Your task to perform on an android device: change notification settings in the gmail app Image 0: 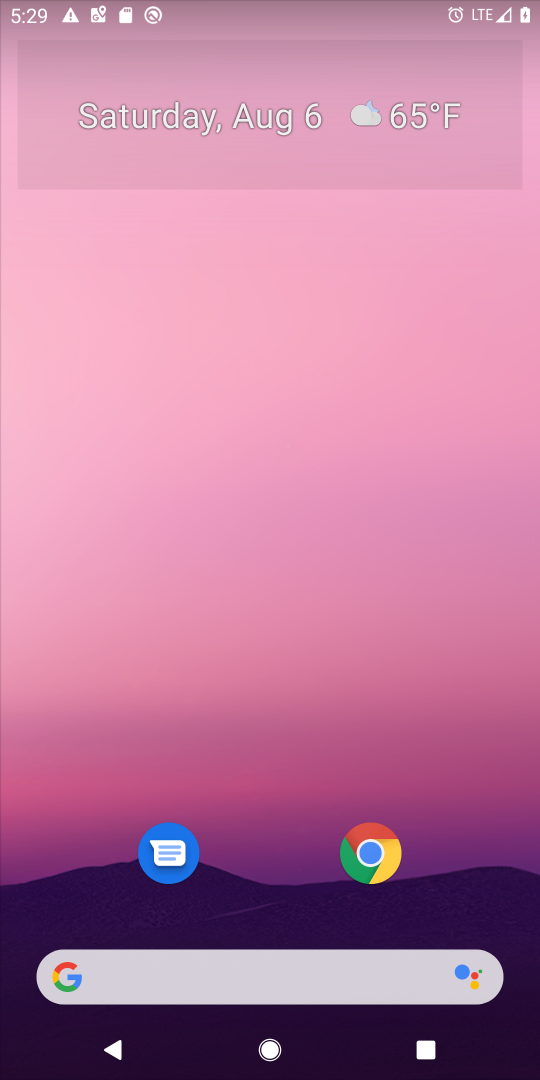
Step 0: drag from (217, 879) to (296, 159)
Your task to perform on an android device: change notification settings in the gmail app Image 1: 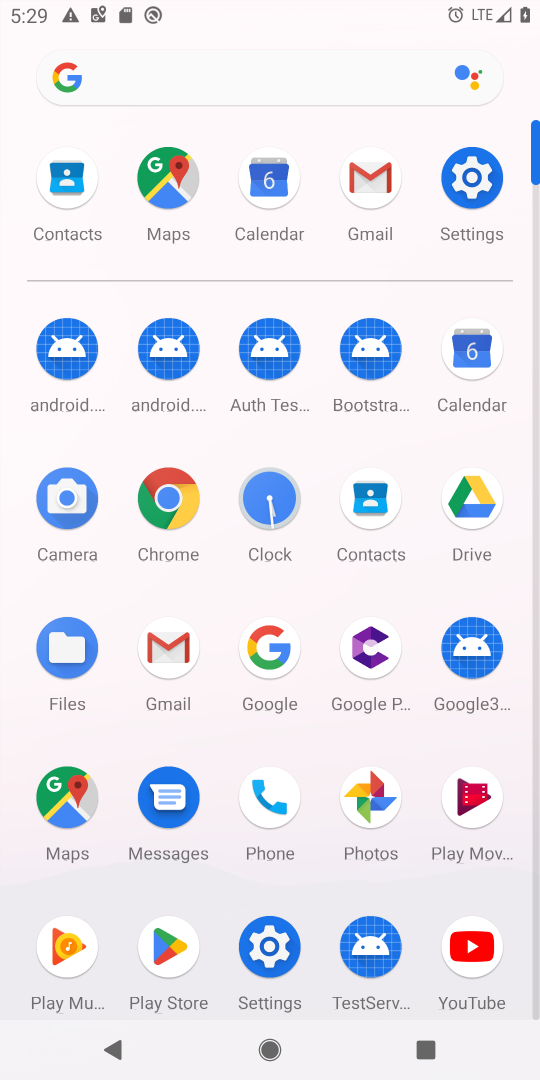
Step 1: click (374, 186)
Your task to perform on an android device: change notification settings in the gmail app Image 2: 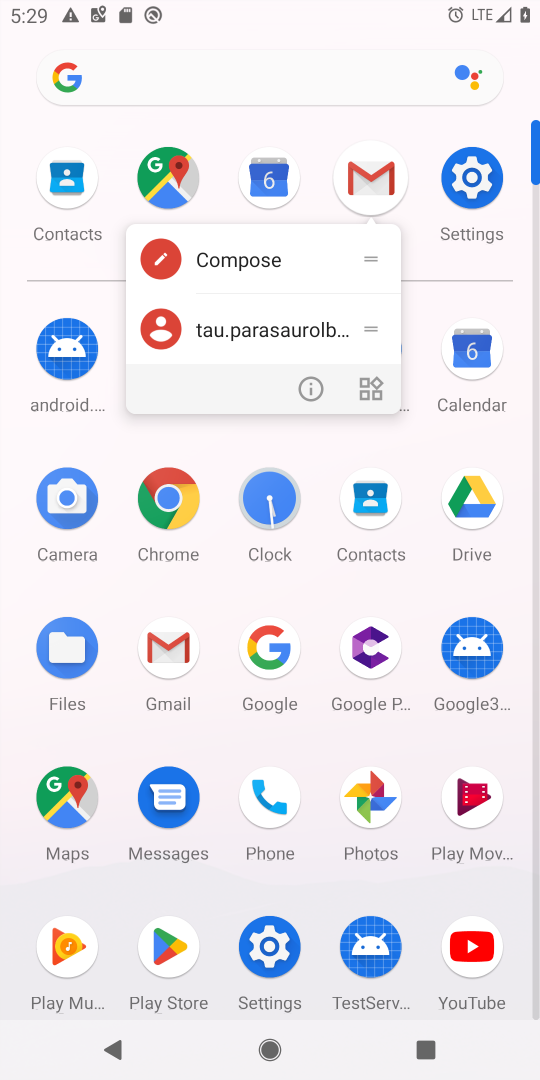
Step 2: click (308, 375)
Your task to perform on an android device: change notification settings in the gmail app Image 3: 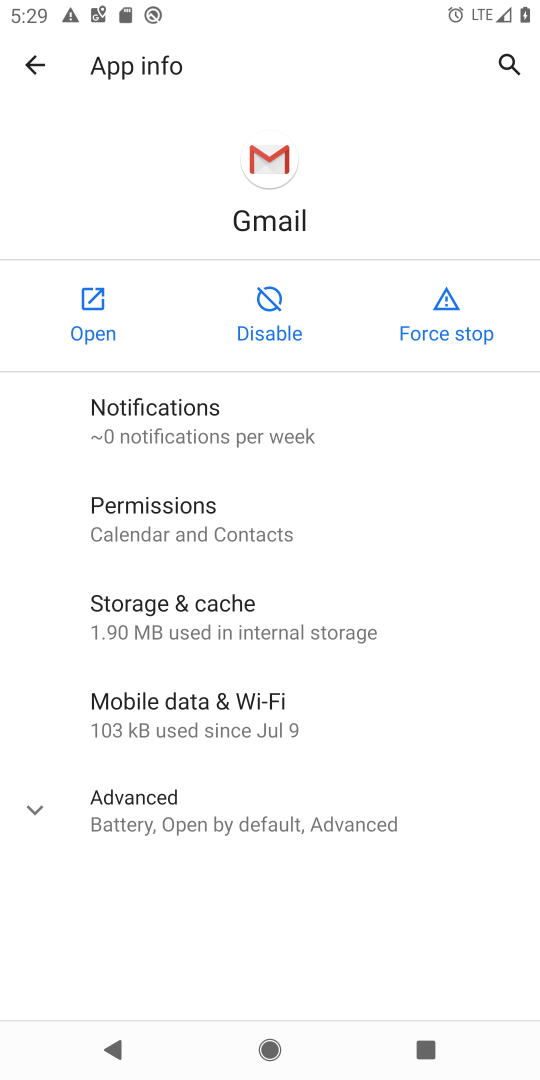
Step 3: click (212, 422)
Your task to perform on an android device: change notification settings in the gmail app Image 4: 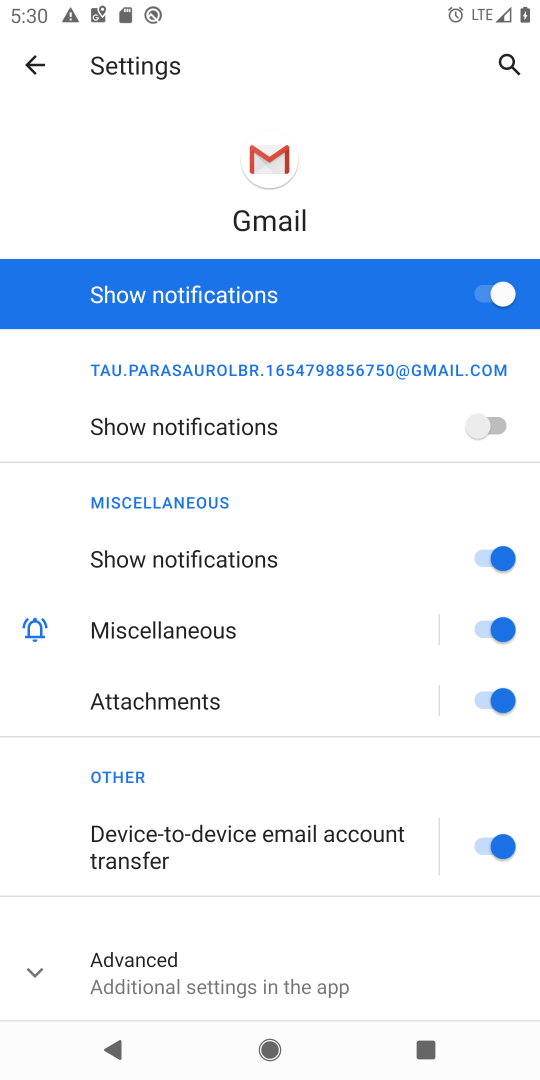
Step 4: click (484, 414)
Your task to perform on an android device: change notification settings in the gmail app Image 5: 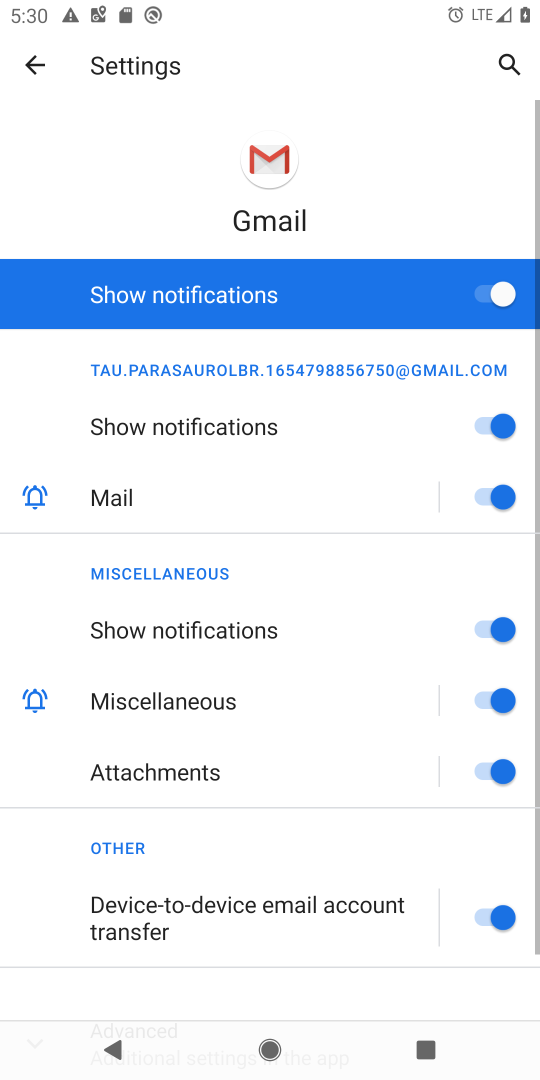
Step 5: task complete